Your task to perform on an android device: Find coffee shops on Maps Image 0: 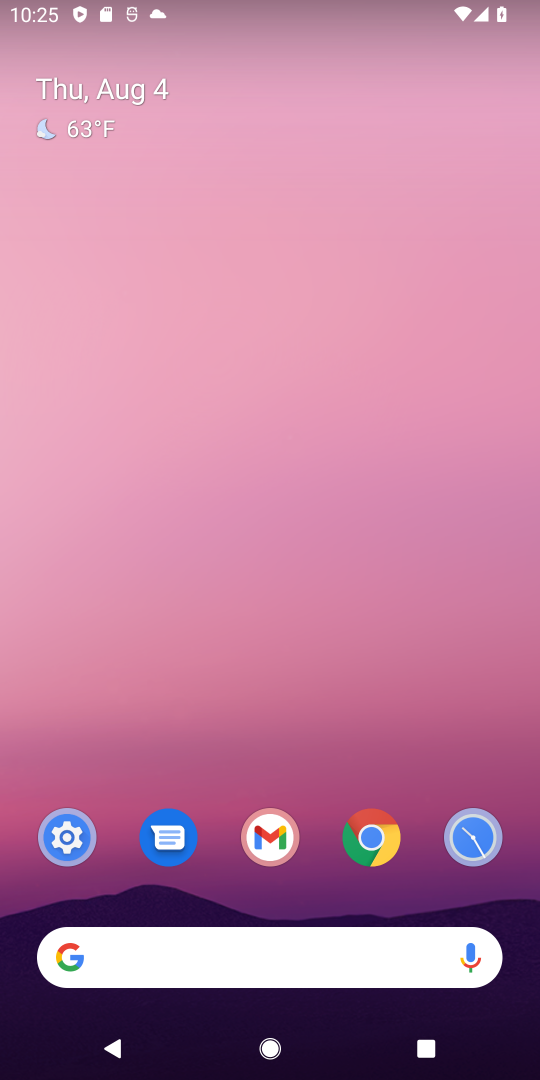
Step 0: press home button
Your task to perform on an android device: Find coffee shops on Maps Image 1: 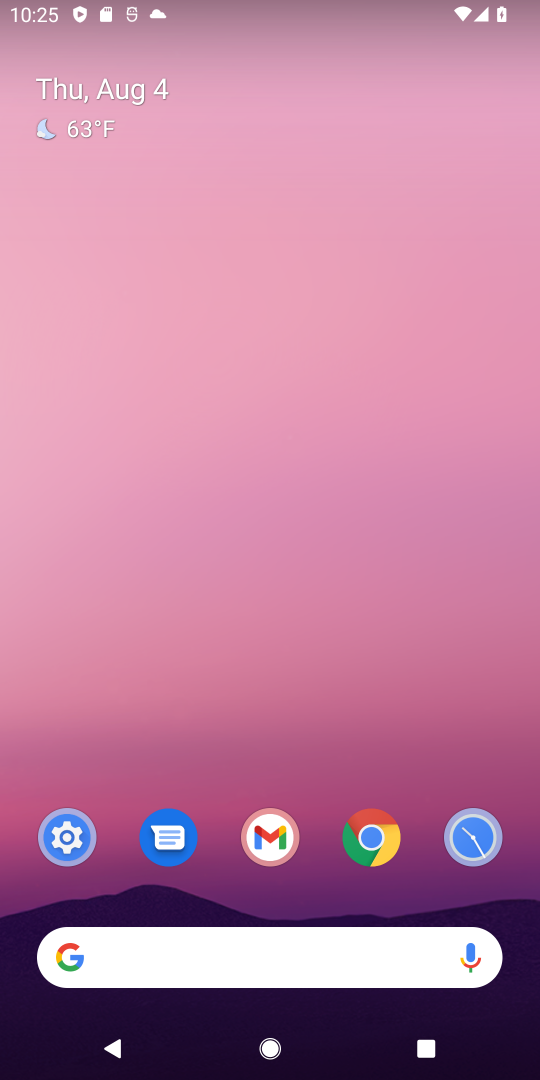
Step 1: drag from (323, 899) to (327, 131)
Your task to perform on an android device: Find coffee shops on Maps Image 2: 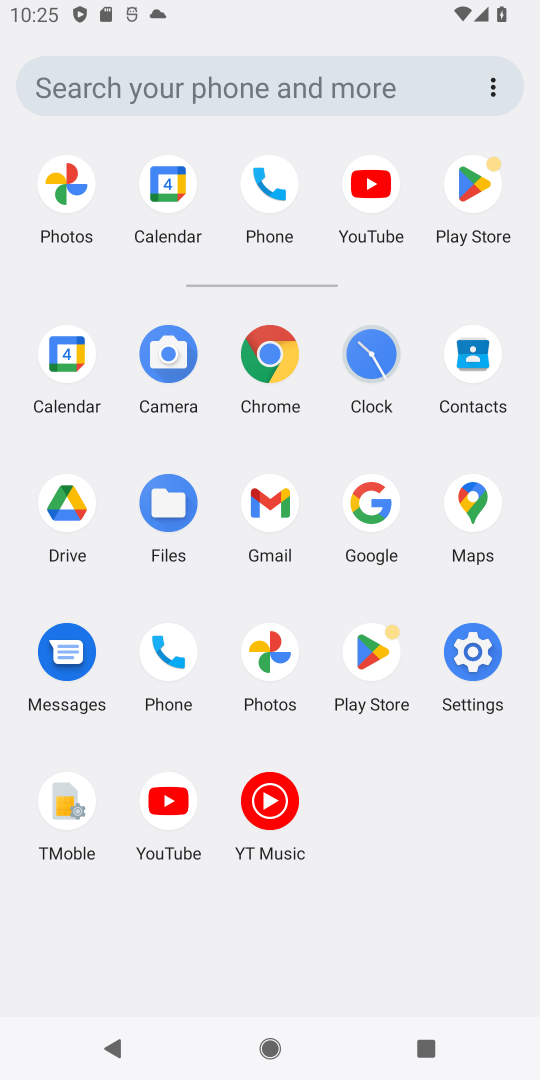
Step 2: click (472, 497)
Your task to perform on an android device: Find coffee shops on Maps Image 3: 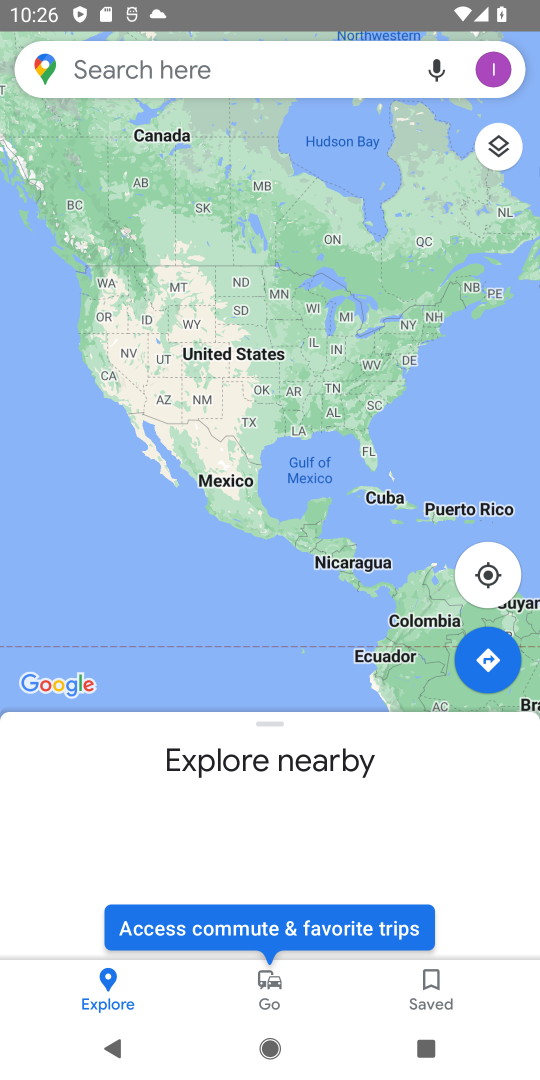
Step 3: click (73, 63)
Your task to perform on an android device: Find coffee shops on Maps Image 4: 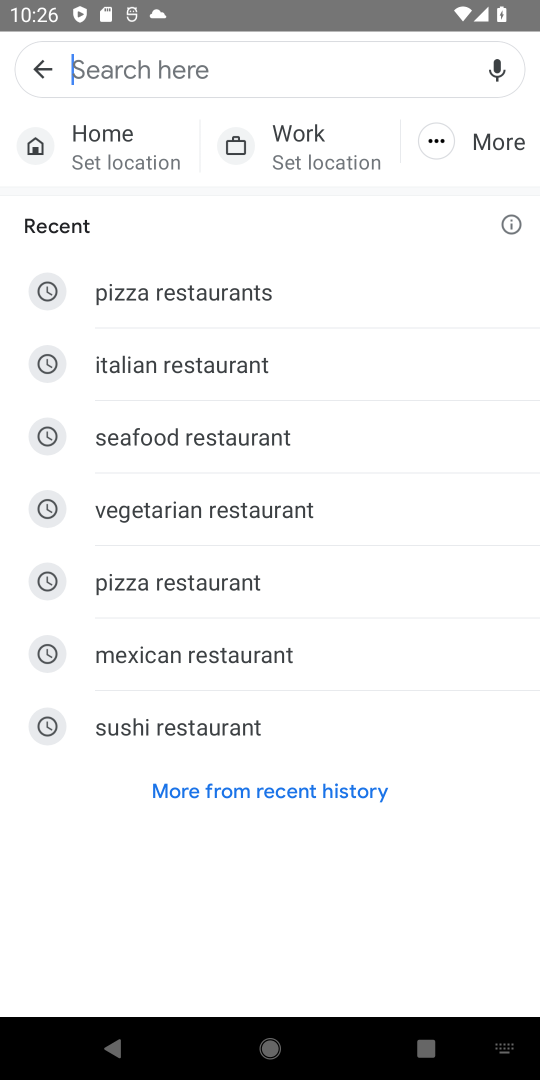
Step 4: type "coffee"
Your task to perform on an android device: Find coffee shops on Maps Image 5: 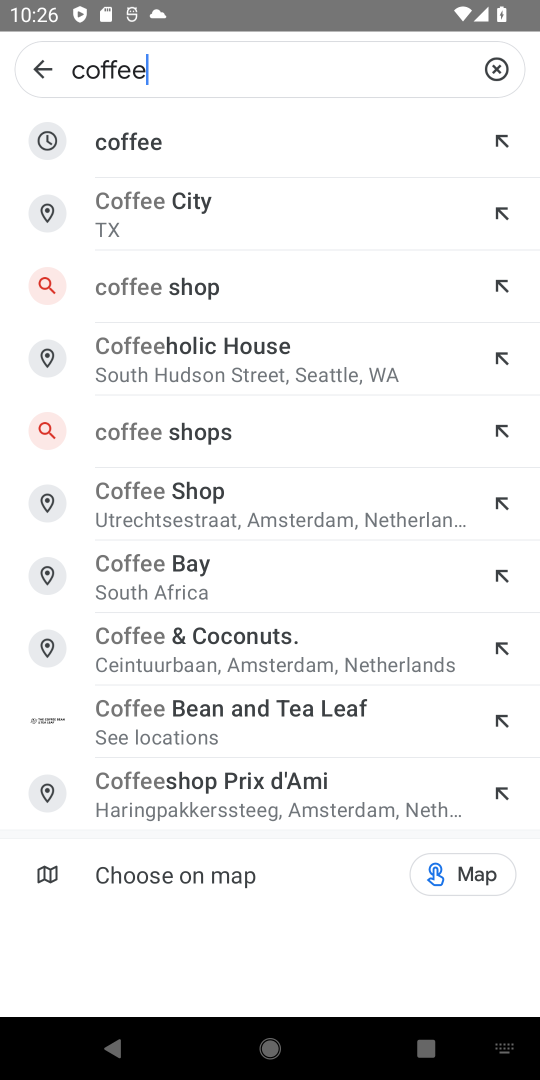
Step 5: click (158, 140)
Your task to perform on an android device: Find coffee shops on Maps Image 6: 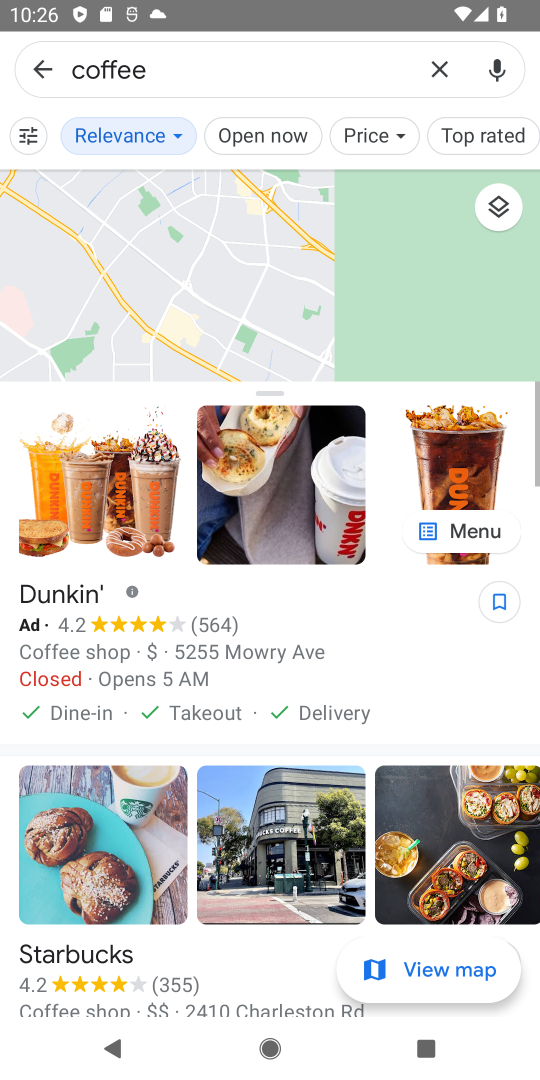
Step 6: task complete